Your task to perform on an android device: delete location history Image 0: 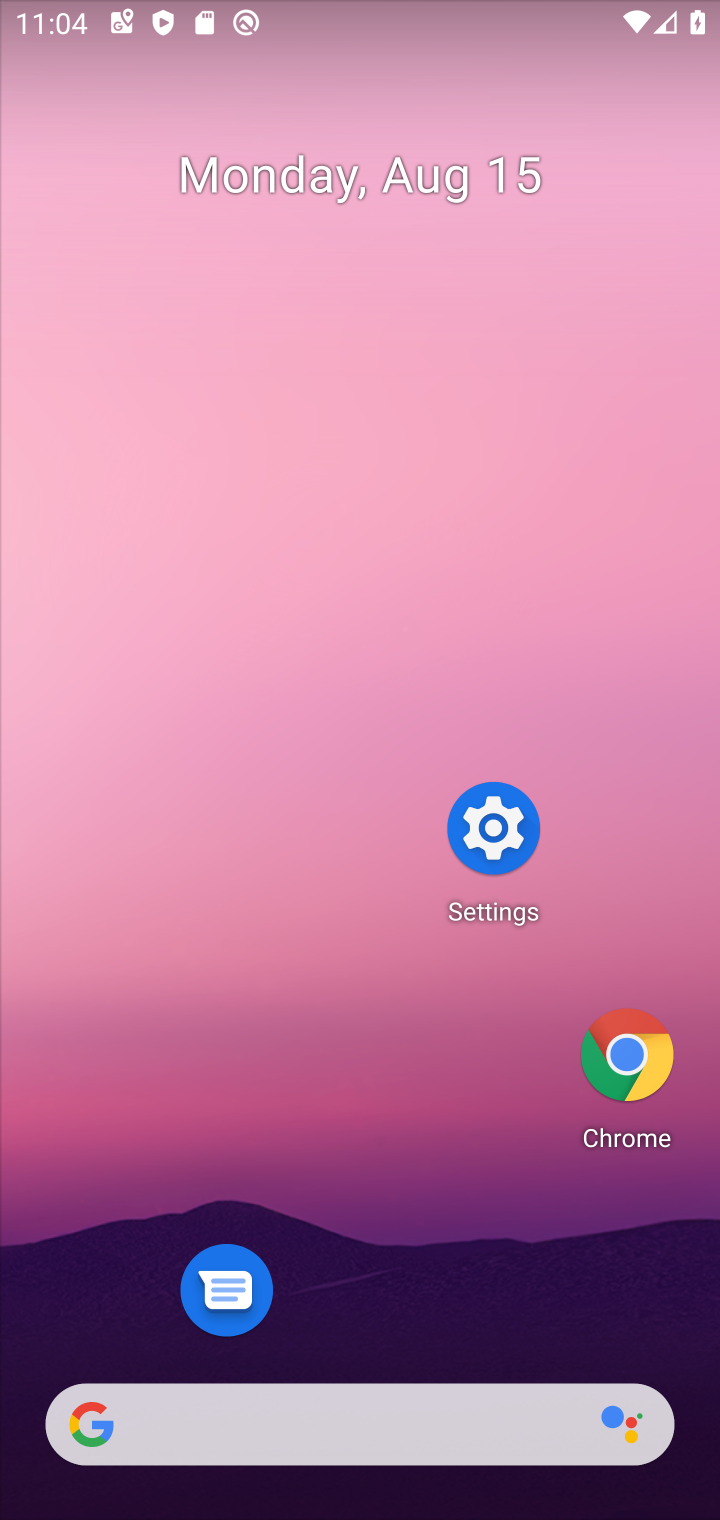
Step 0: drag from (291, 1440) to (527, 162)
Your task to perform on an android device: delete location history Image 1: 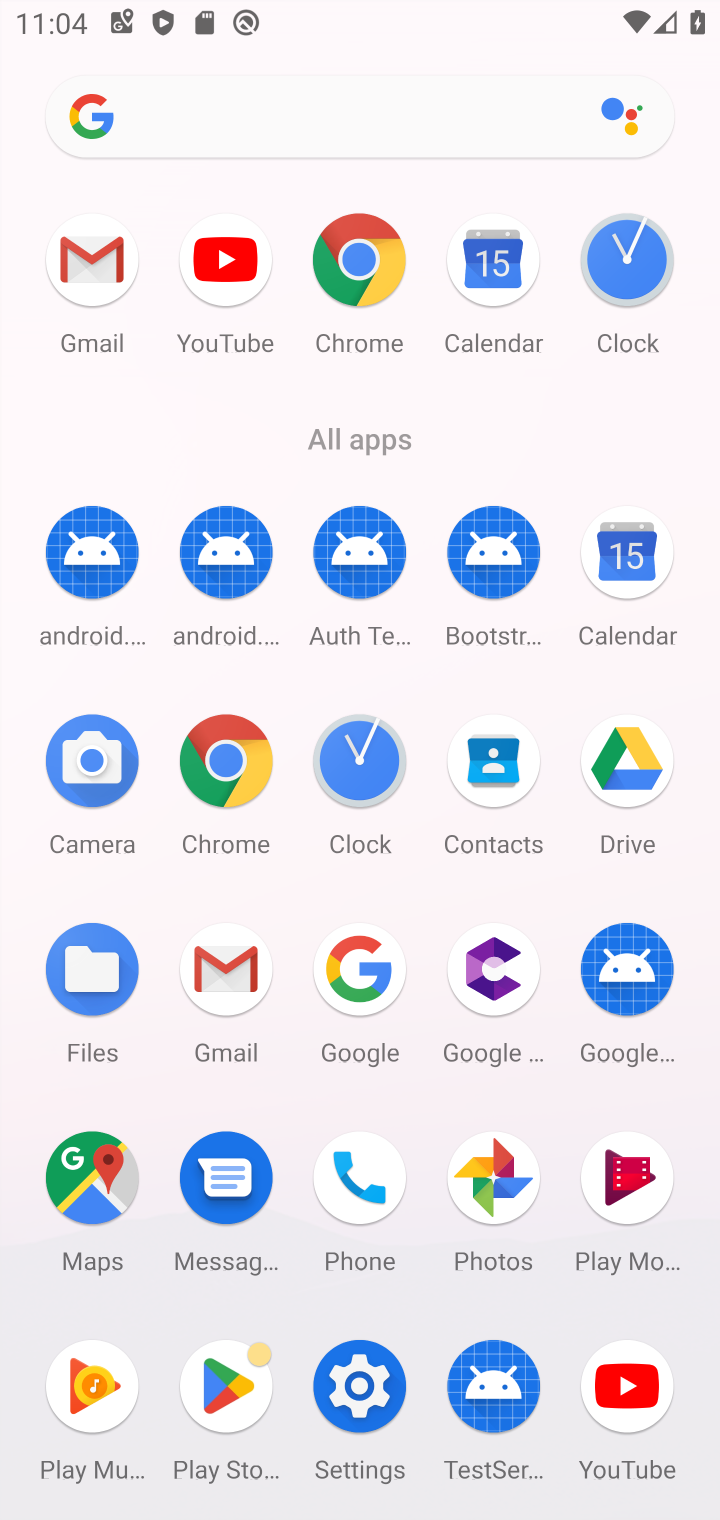
Step 1: drag from (82, 1184) to (263, 847)
Your task to perform on an android device: delete location history Image 2: 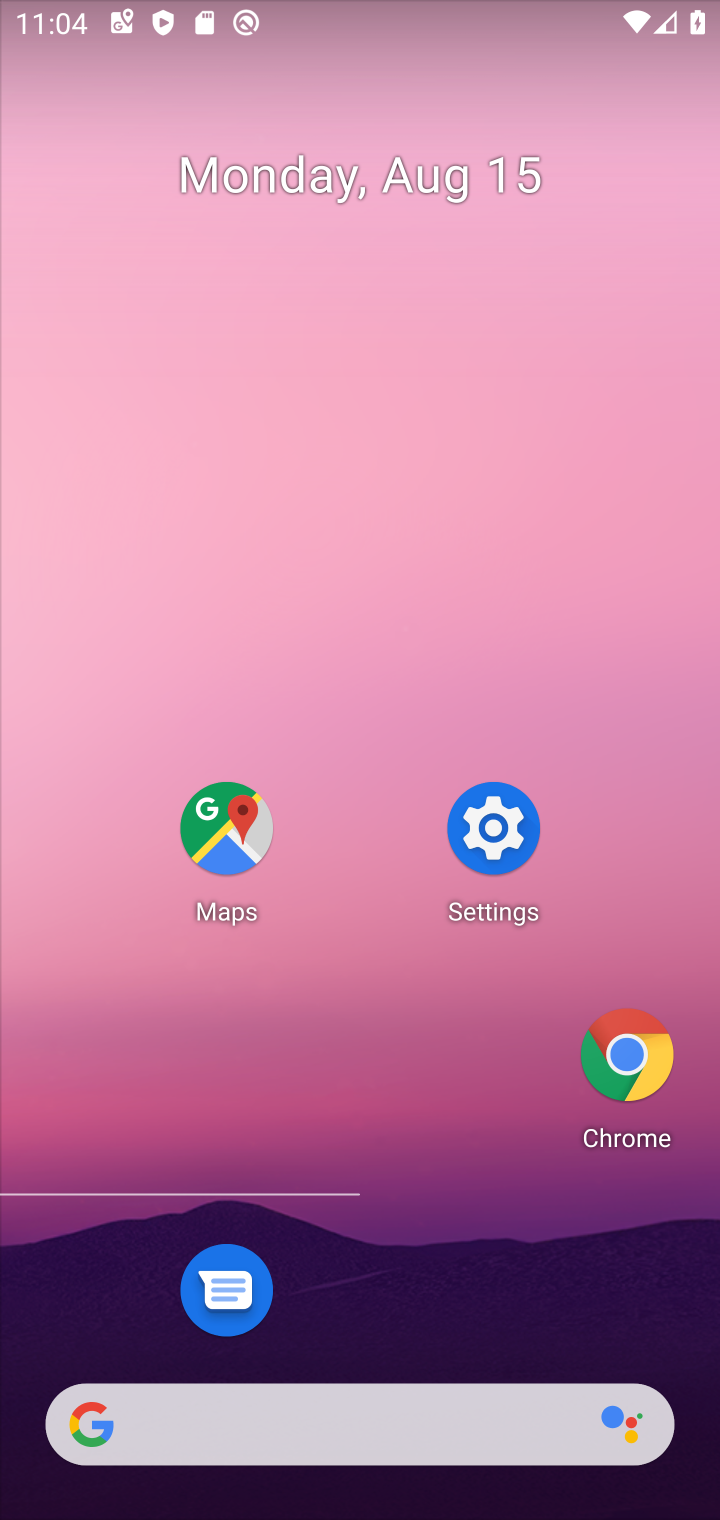
Step 2: click (219, 847)
Your task to perform on an android device: delete location history Image 3: 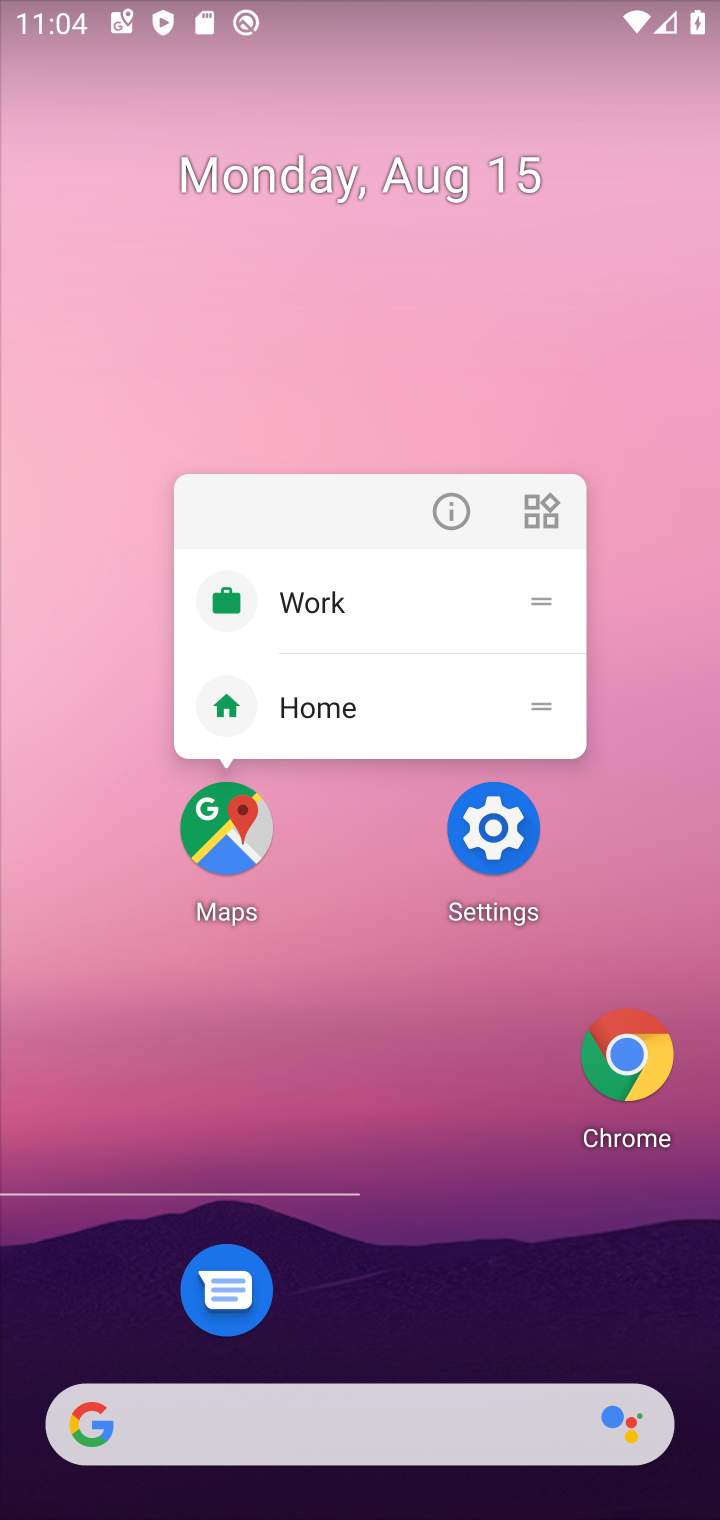
Step 3: click (219, 852)
Your task to perform on an android device: delete location history Image 4: 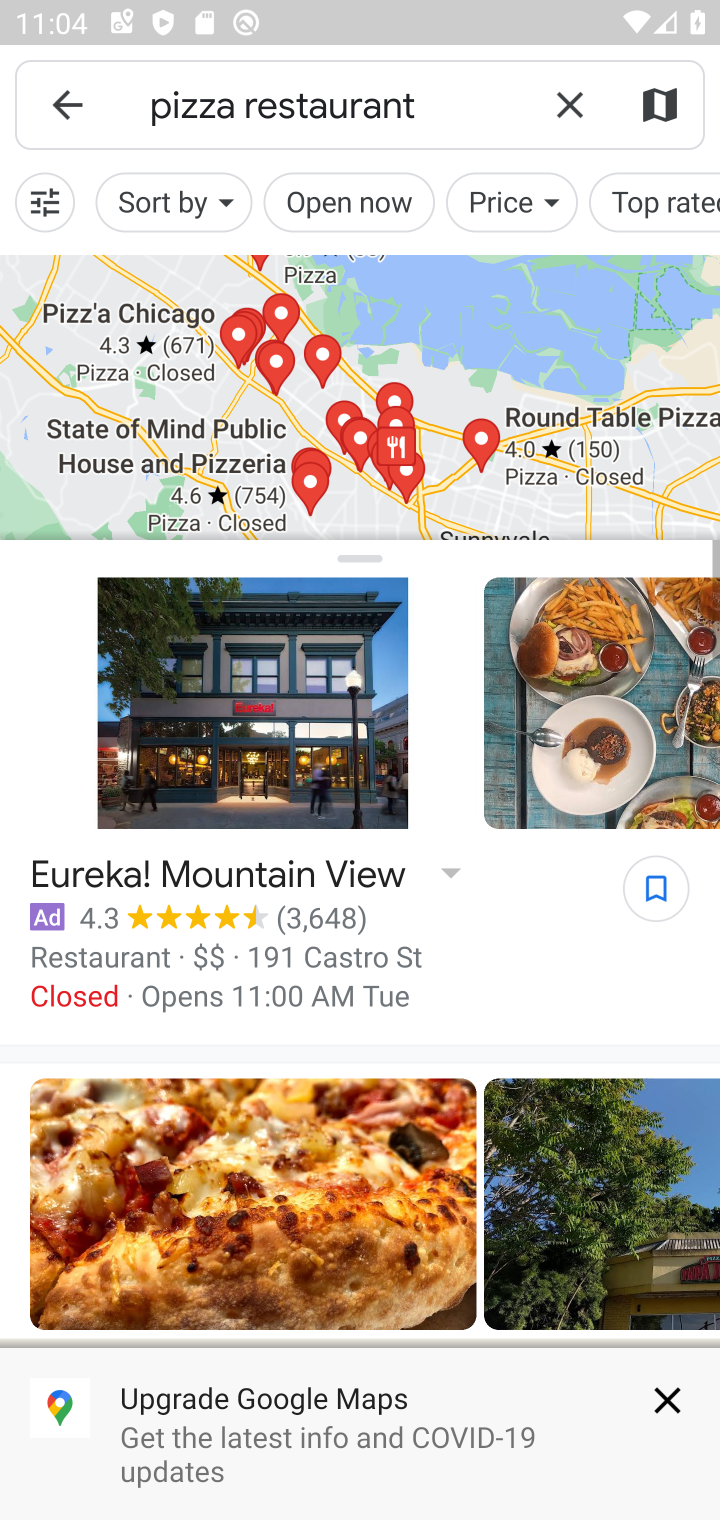
Step 4: click (52, 110)
Your task to perform on an android device: delete location history Image 5: 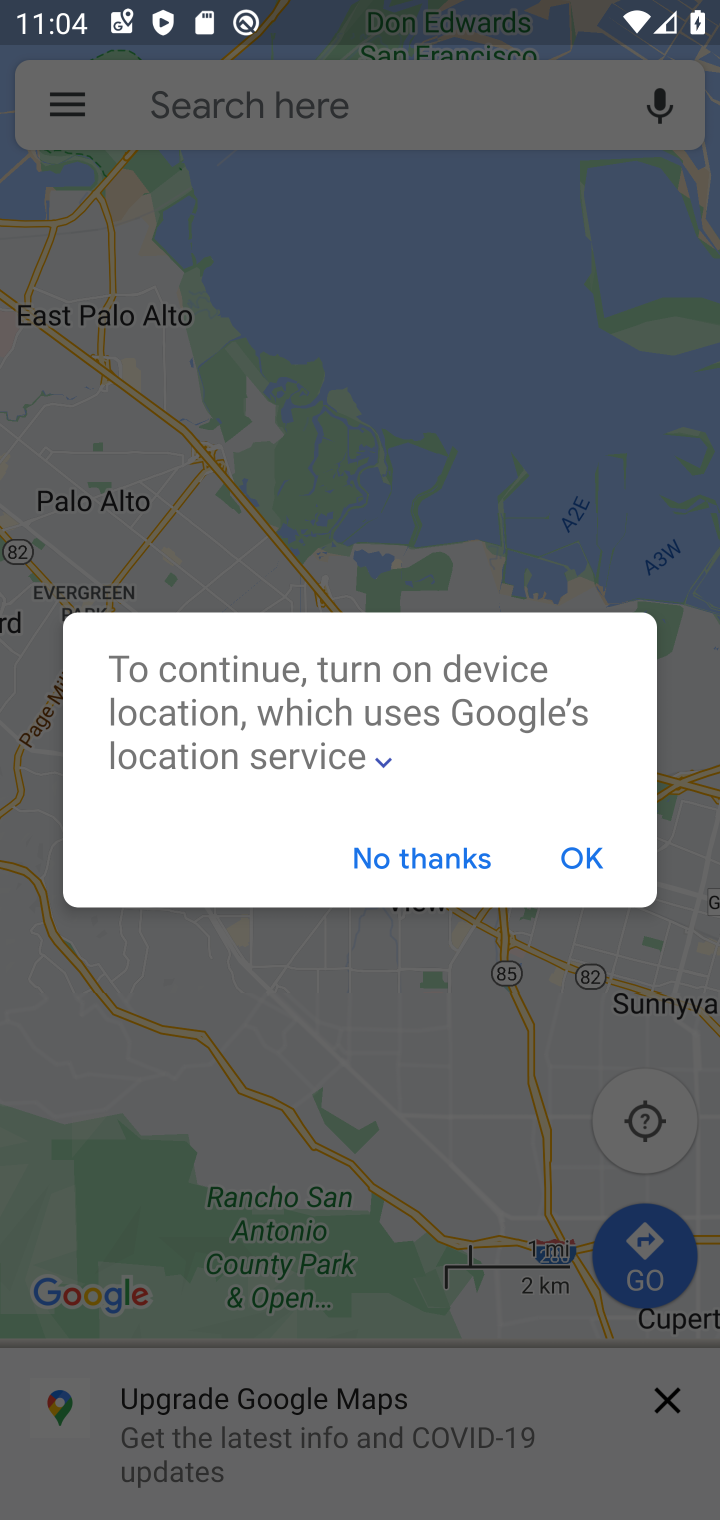
Step 5: click (589, 851)
Your task to perform on an android device: delete location history Image 6: 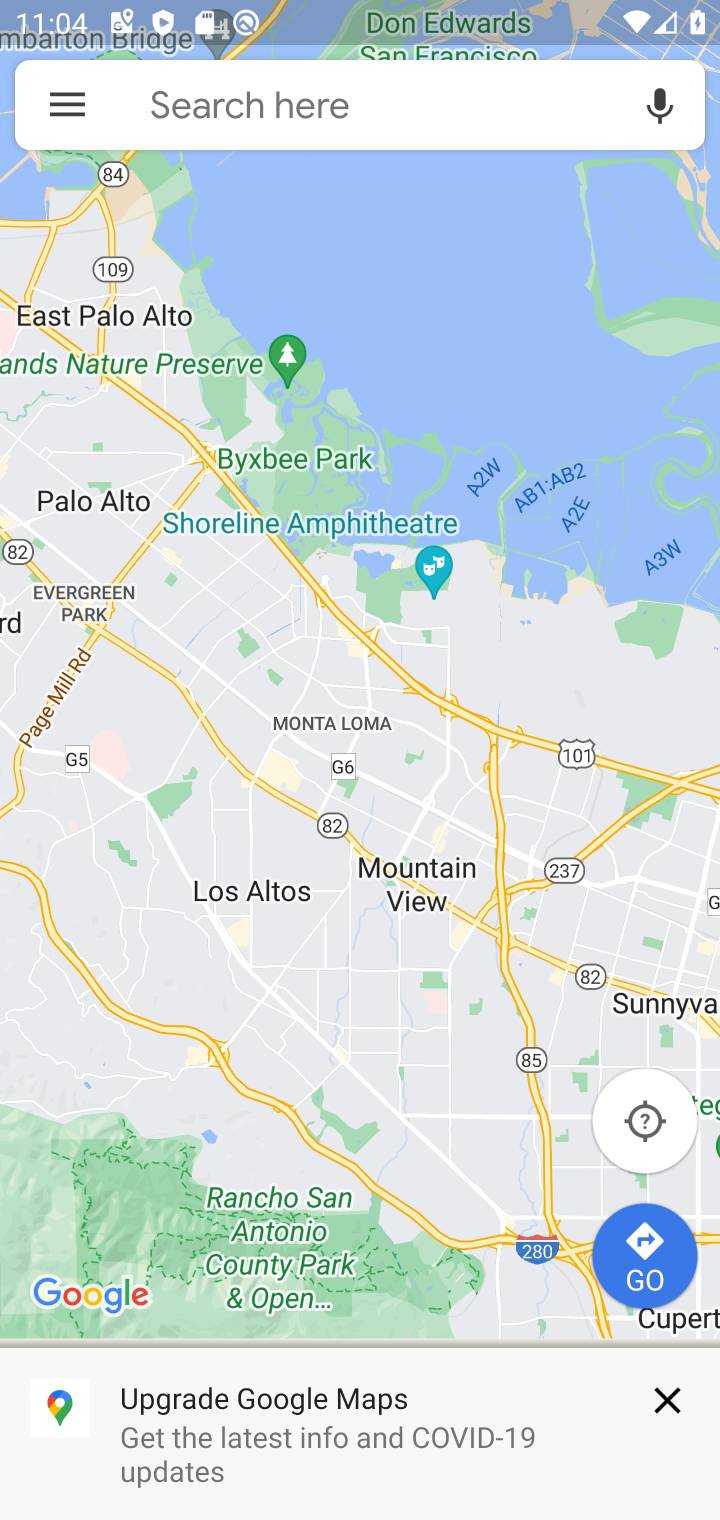
Step 6: click (55, 91)
Your task to perform on an android device: delete location history Image 7: 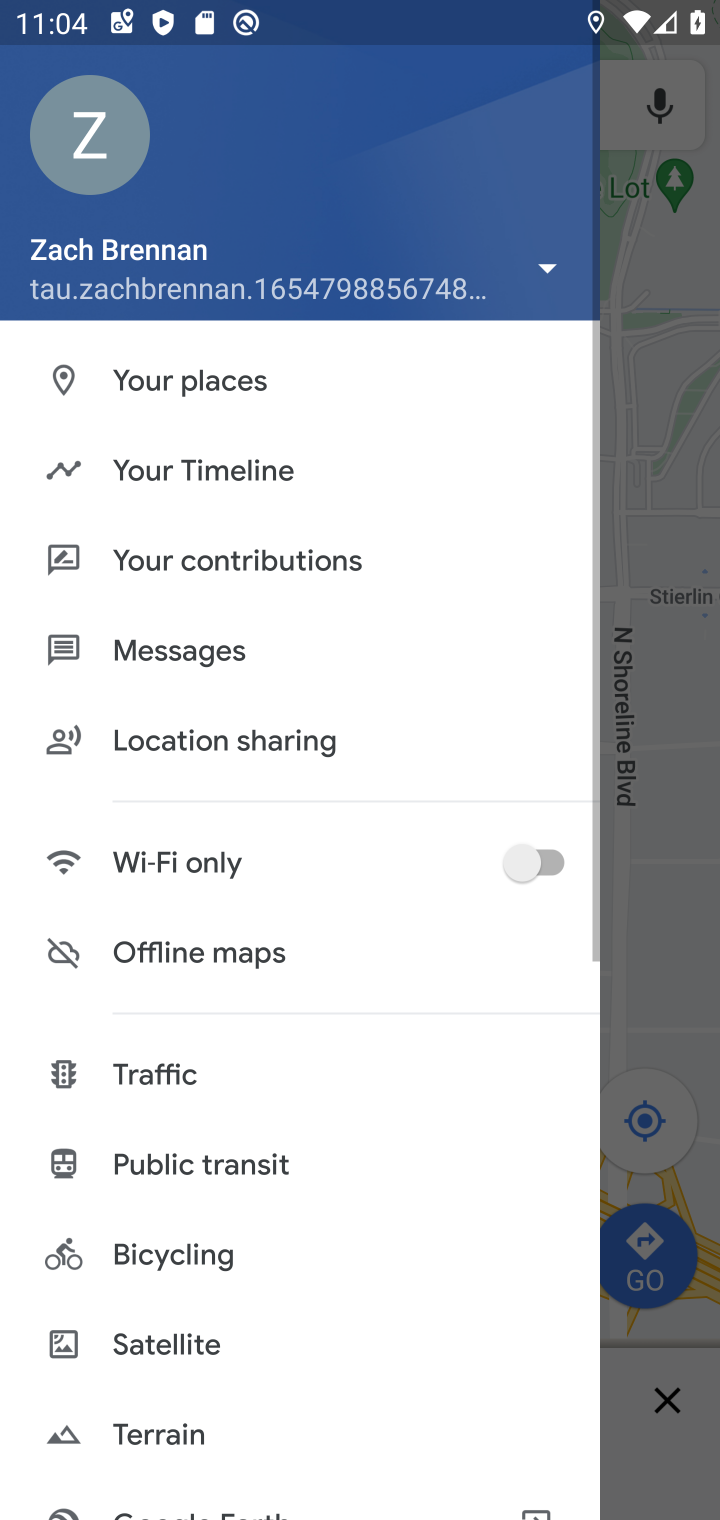
Step 7: click (237, 471)
Your task to perform on an android device: delete location history Image 8: 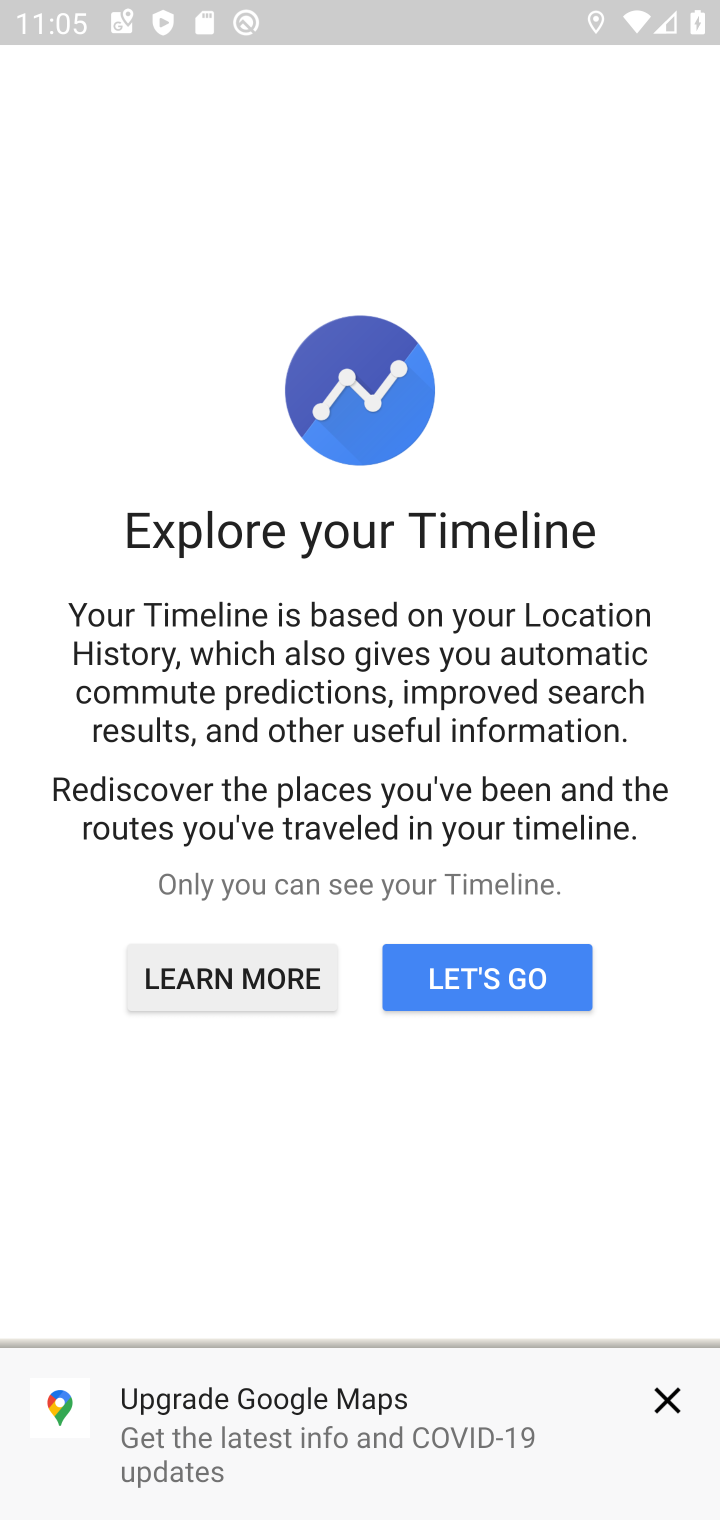
Step 8: click (501, 981)
Your task to perform on an android device: delete location history Image 9: 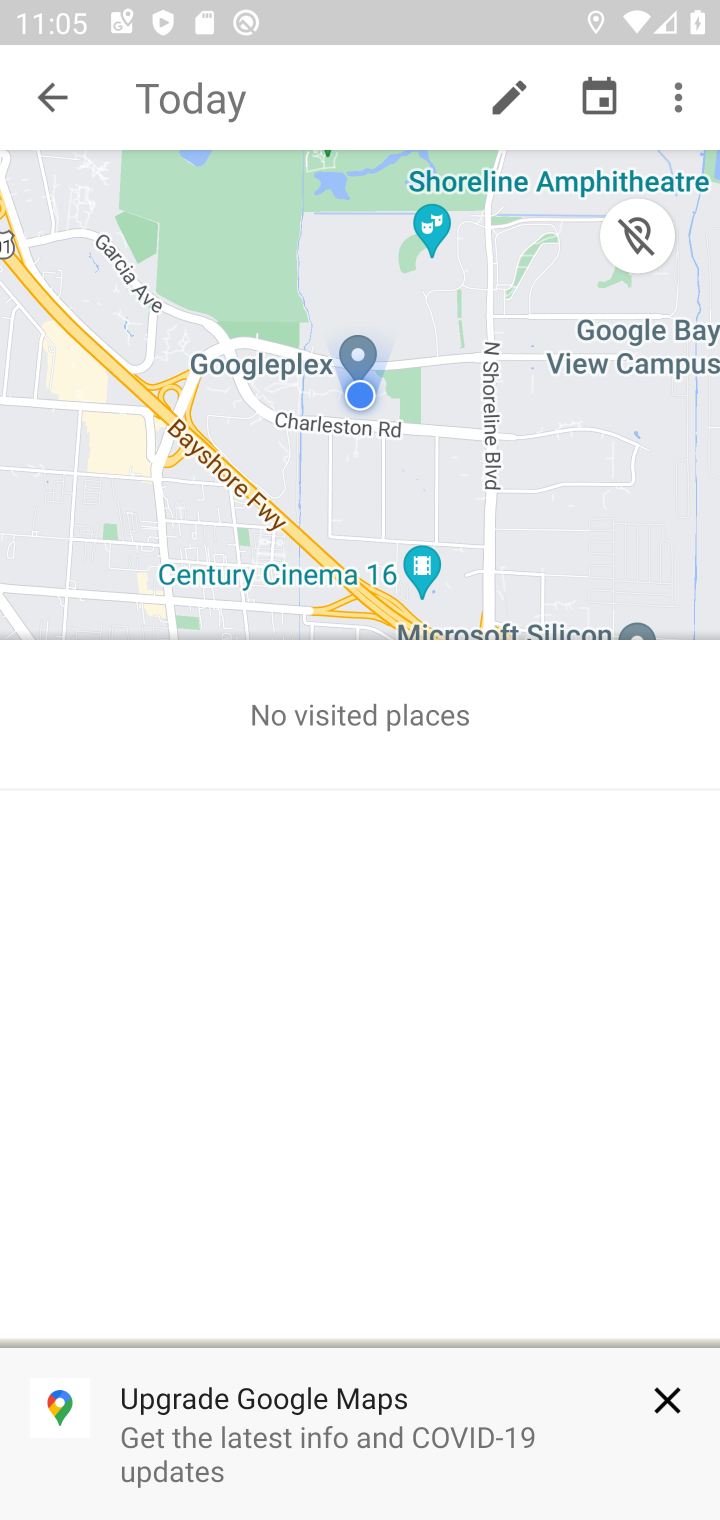
Step 9: click (669, 85)
Your task to perform on an android device: delete location history Image 10: 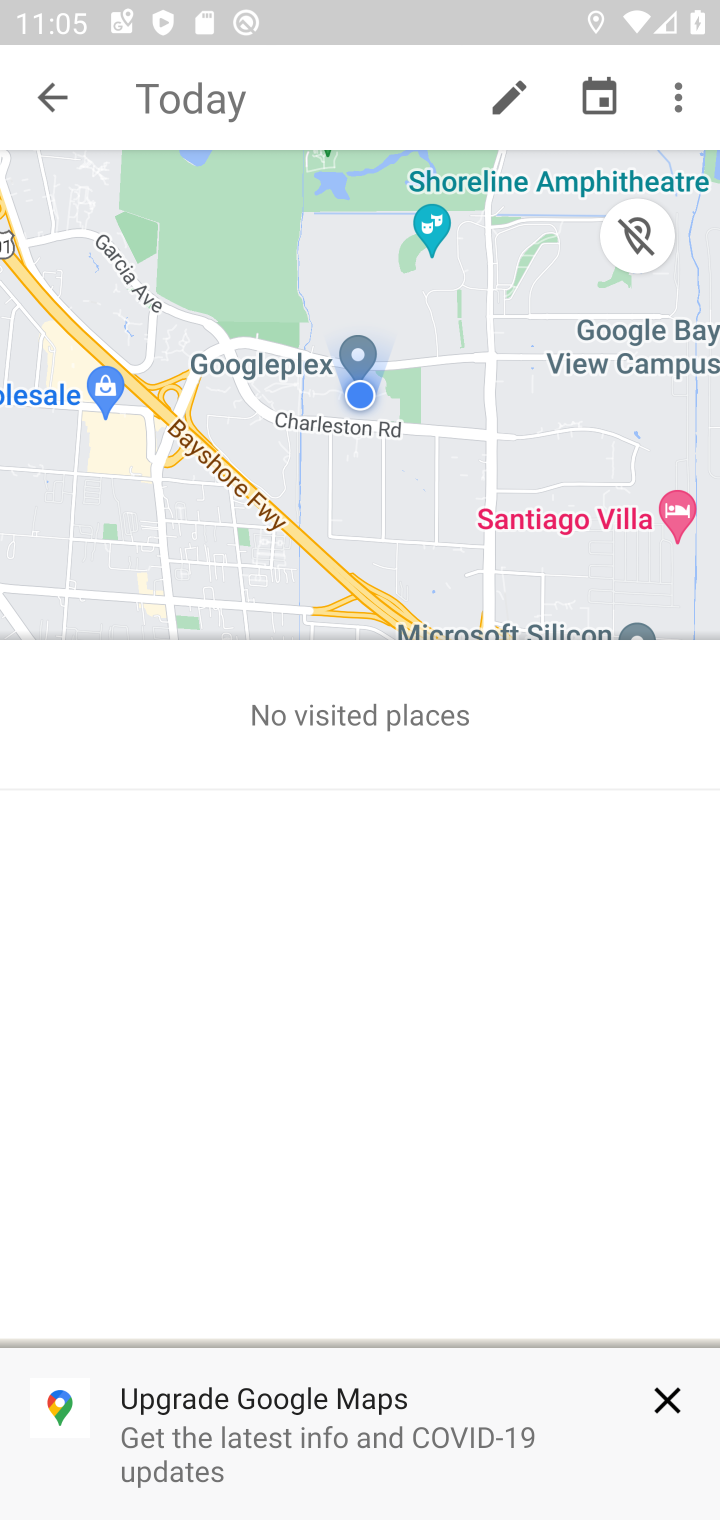
Step 10: click (668, 103)
Your task to perform on an android device: delete location history Image 11: 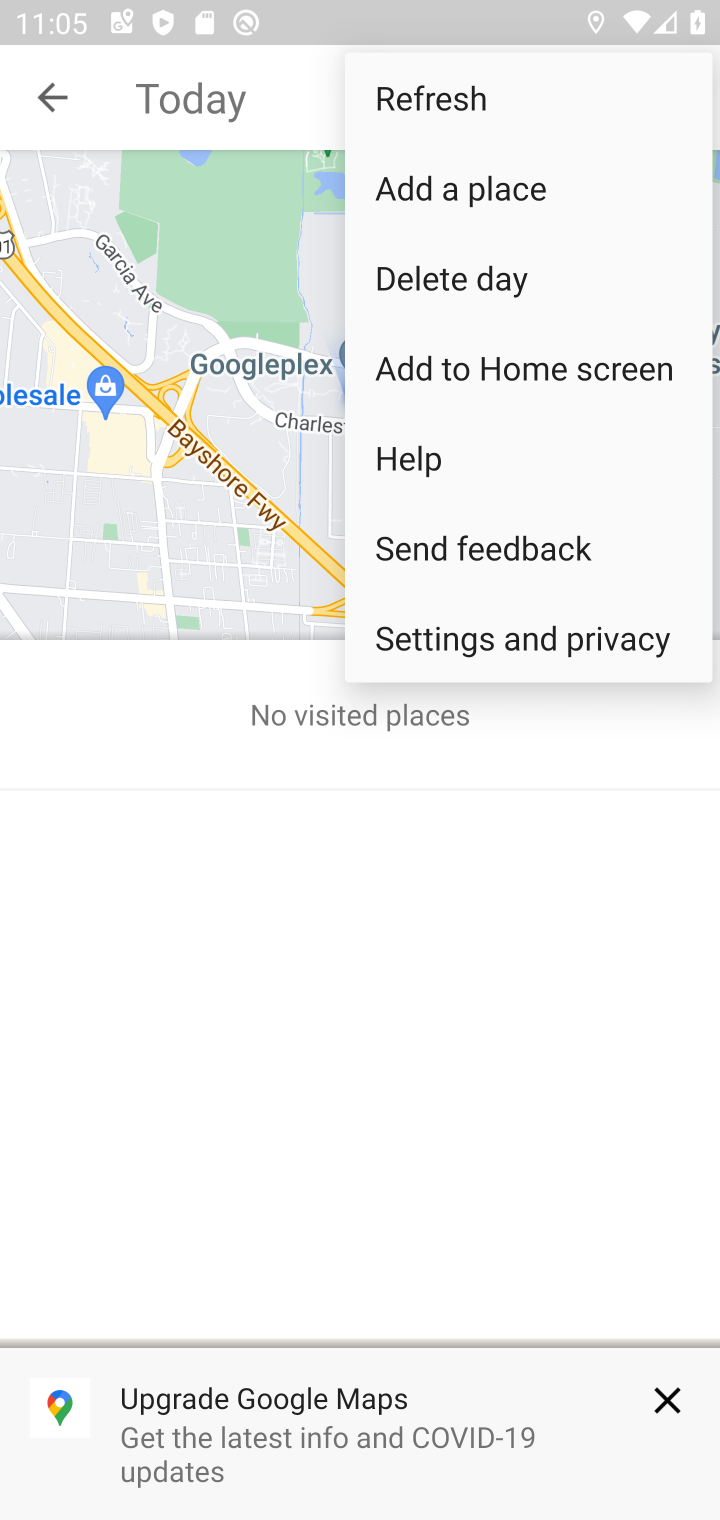
Step 11: click (526, 634)
Your task to perform on an android device: delete location history Image 12: 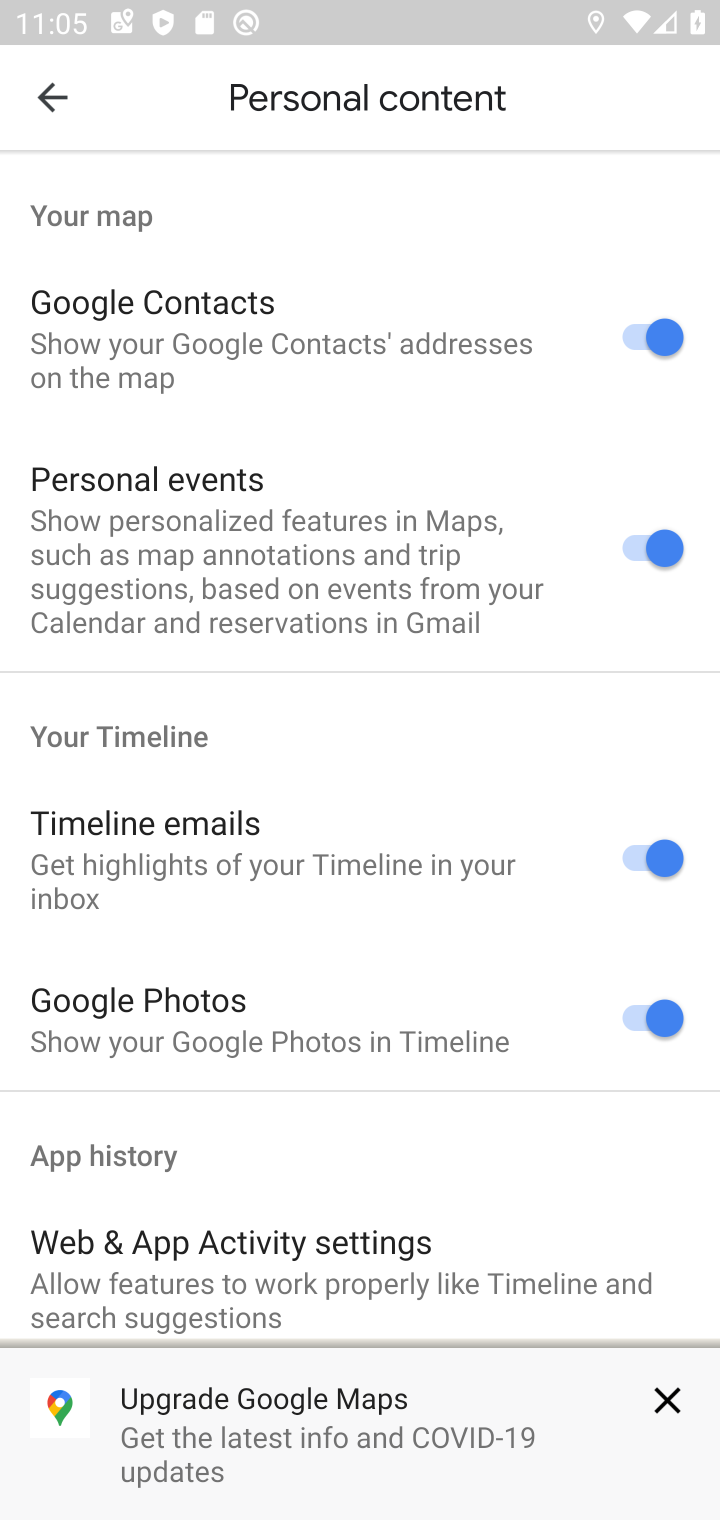
Step 12: drag from (325, 1201) to (554, 35)
Your task to perform on an android device: delete location history Image 13: 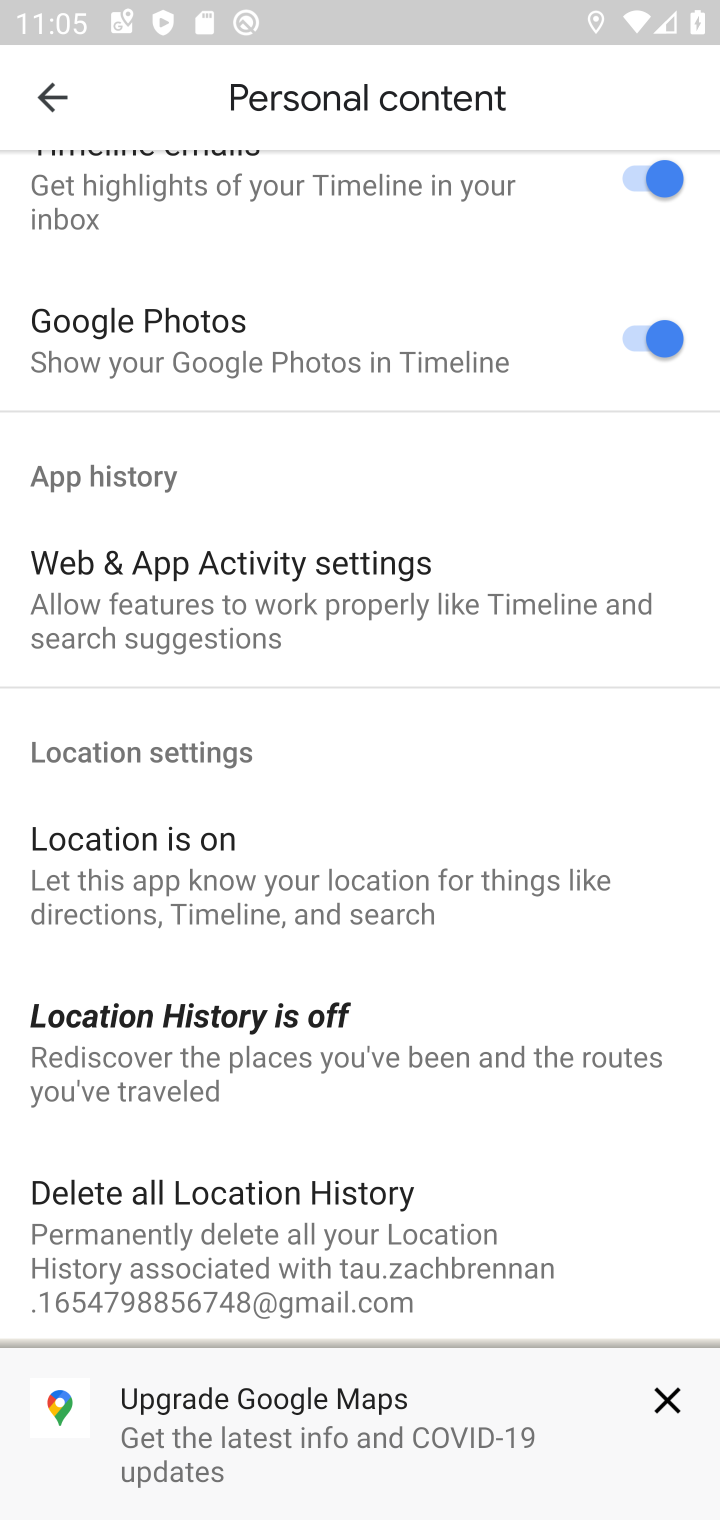
Step 13: click (284, 1202)
Your task to perform on an android device: delete location history Image 14: 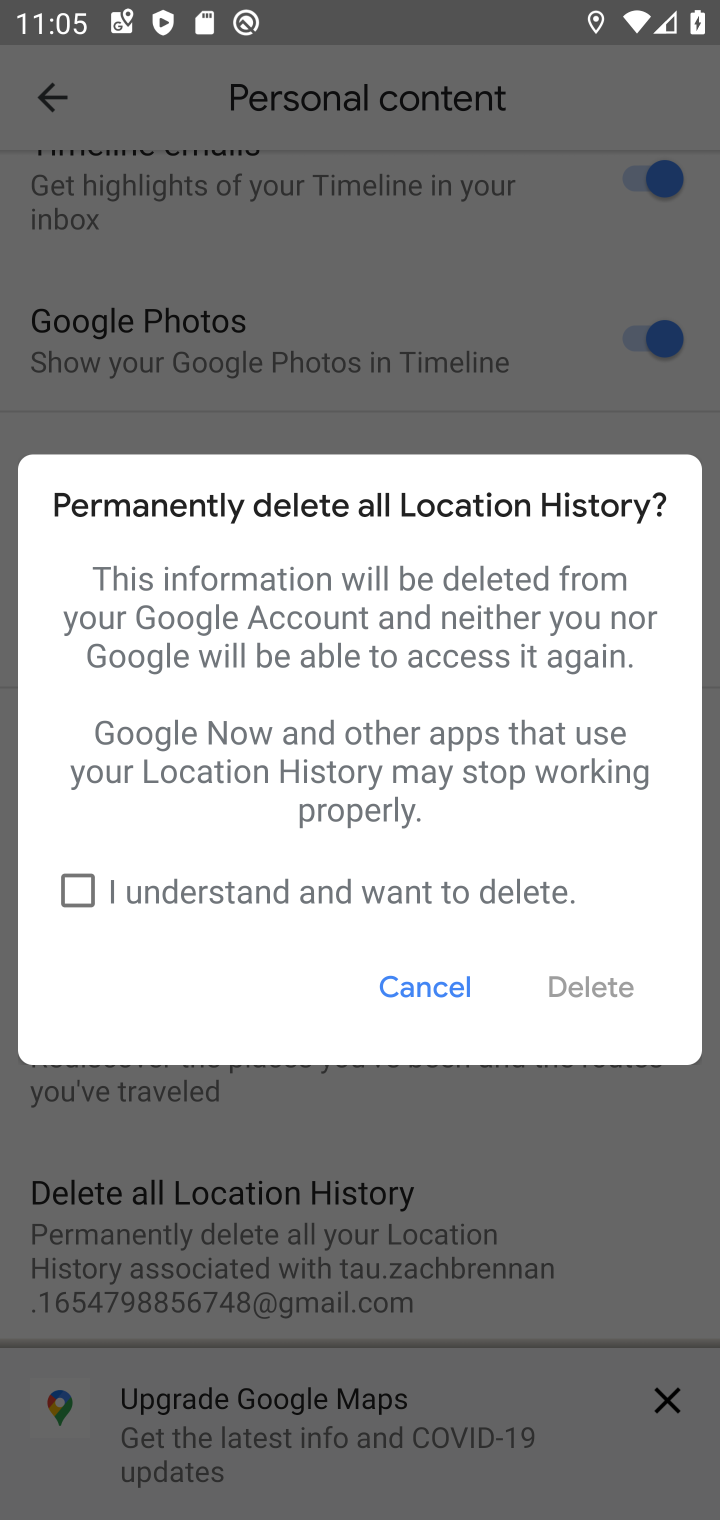
Step 14: click (68, 888)
Your task to perform on an android device: delete location history Image 15: 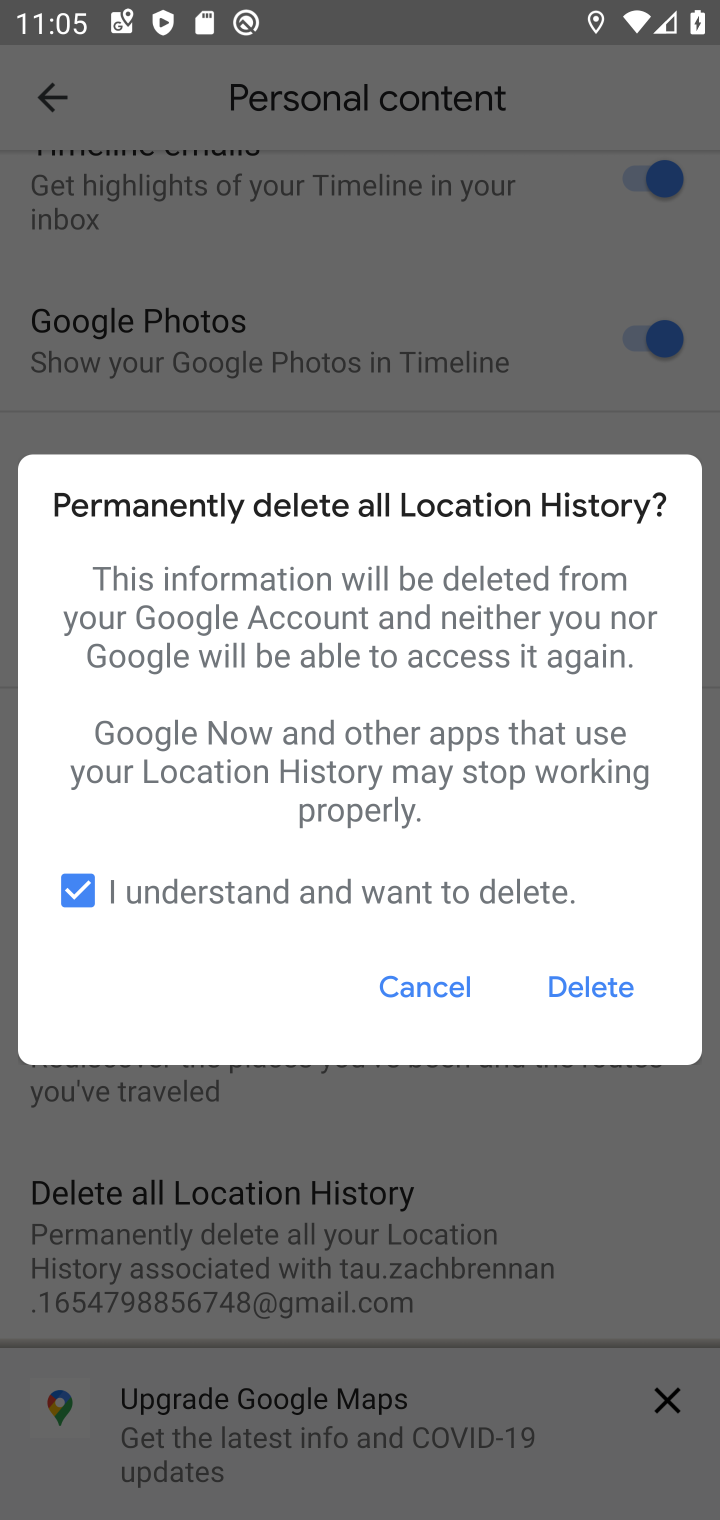
Step 15: click (609, 995)
Your task to perform on an android device: delete location history Image 16: 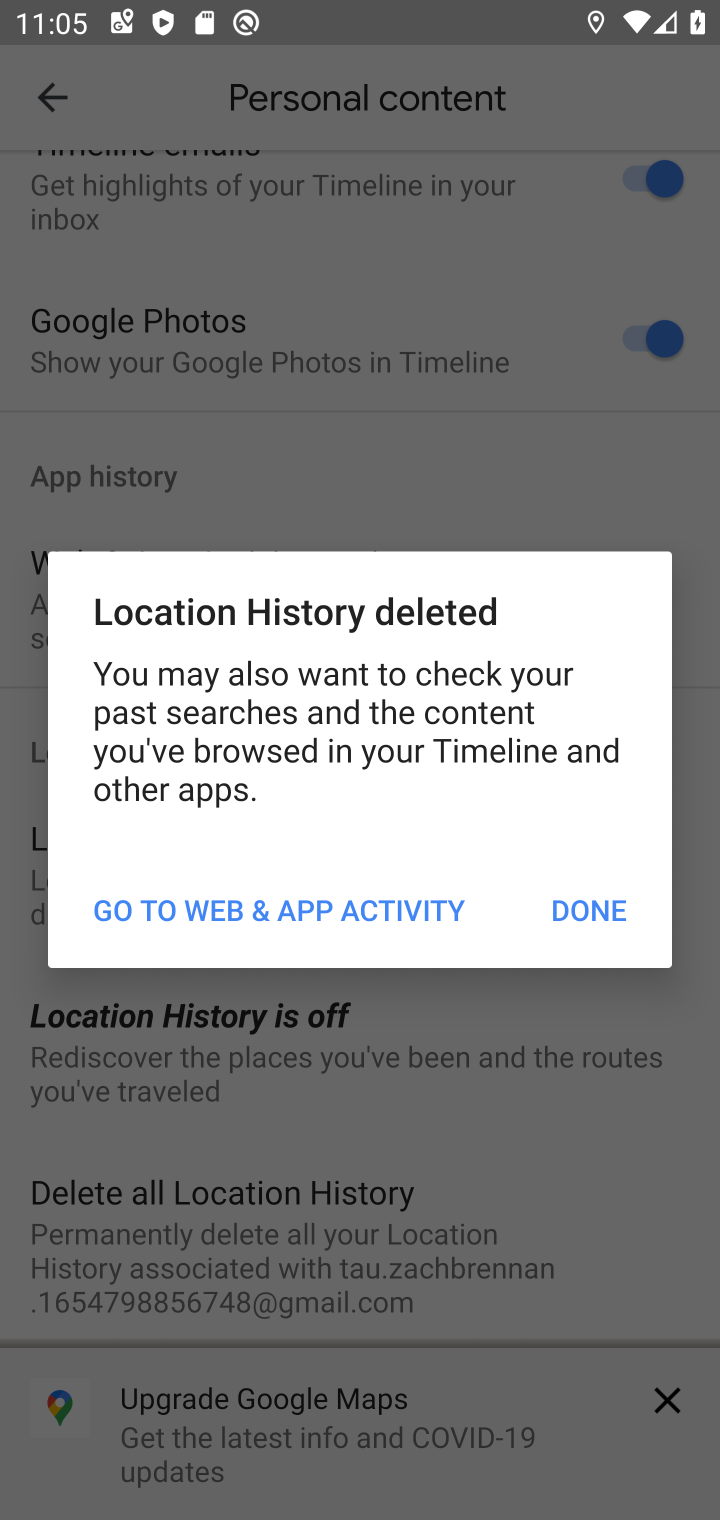
Step 16: click (602, 894)
Your task to perform on an android device: delete location history Image 17: 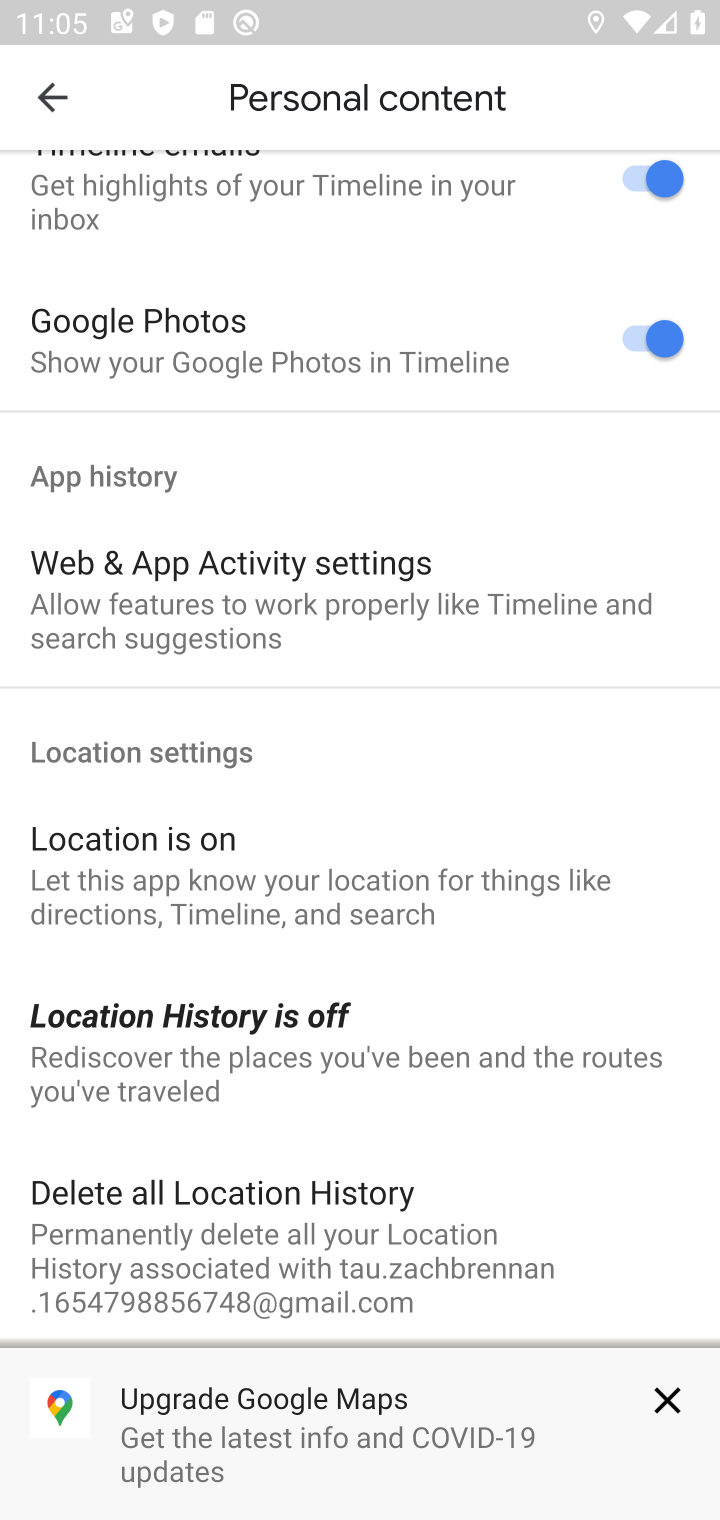
Step 17: task complete